Your task to perform on an android device: turn on data saver in the chrome app Image 0: 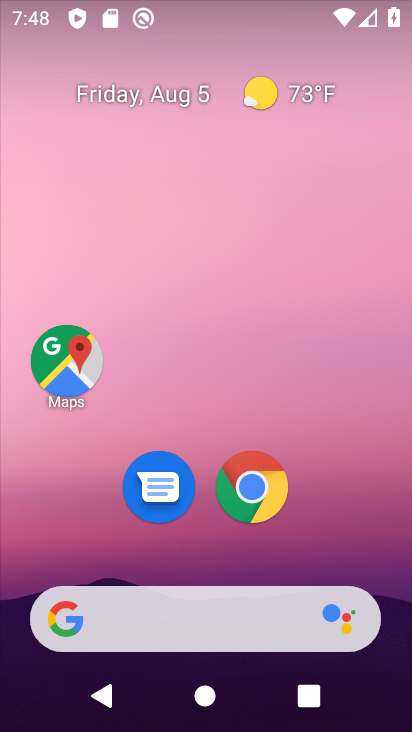
Step 0: press home button
Your task to perform on an android device: turn on data saver in the chrome app Image 1: 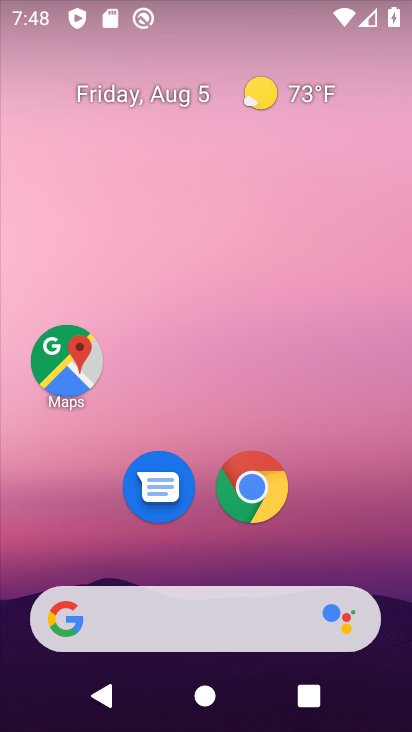
Step 1: click (244, 489)
Your task to perform on an android device: turn on data saver in the chrome app Image 2: 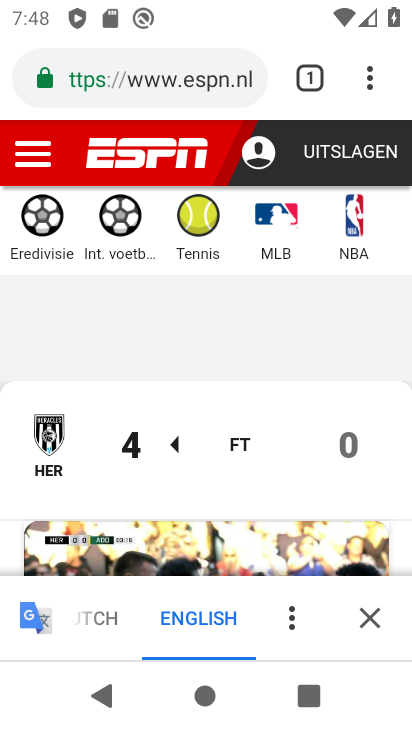
Step 2: drag from (374, 76) to (136, 539)
Your task to perform on an android device: turn on data saver in the chrome app Image 3: 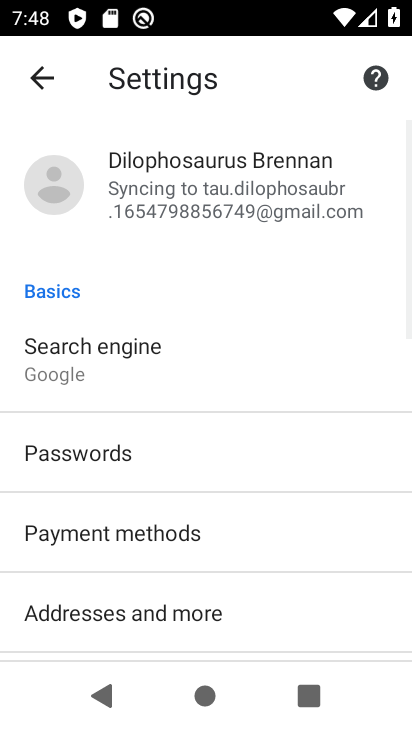
Step 3: drag from (239, 551) to (302, 101)
Your task to perform on an android device: turn on data saver in the chrome app Image 4: 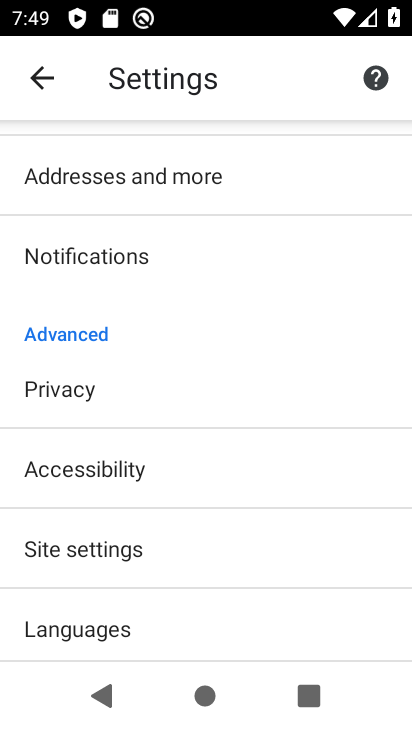
Step 4: drag from (206, 614) to (294, 176)
Your task to perform on an android device: turn on data saver in the chrome app Image 5: 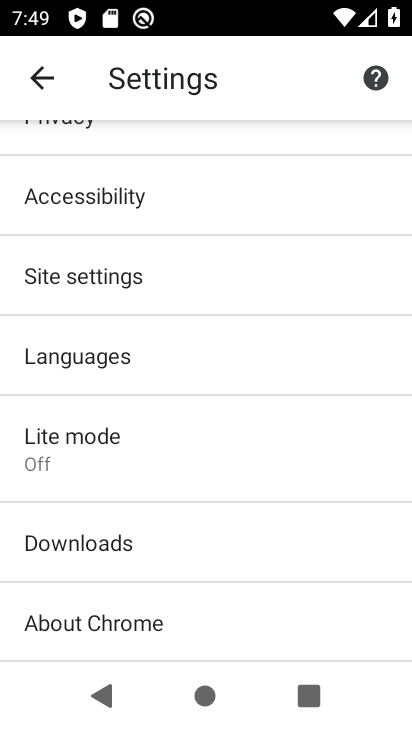
Step 5: click (76, 443)
Your task to perform on an android device: turn on data saver in the chrome app Image 6: 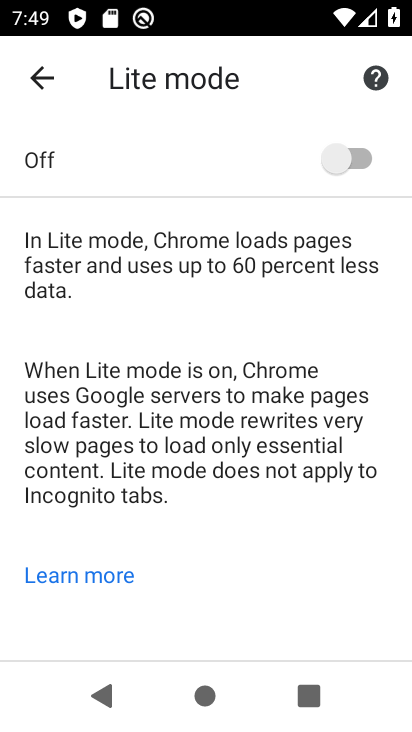
Step 6: click (361, 154)
Your task to perform on an android device: turn on data saver in the chrome app Image 7: 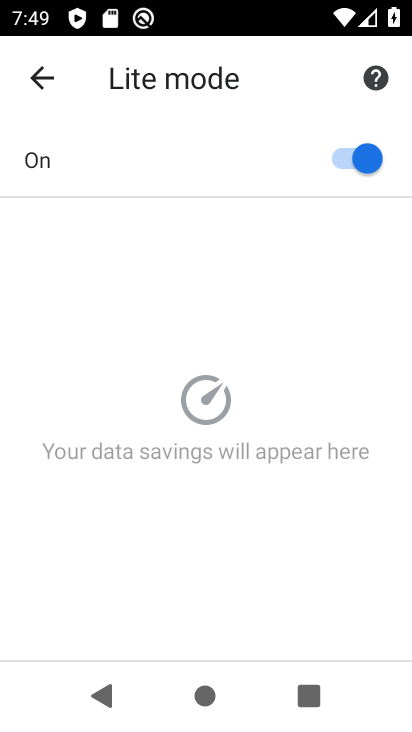
Step 7: task complete